Your task to perform on an android device: turn notification dots off Image 0: 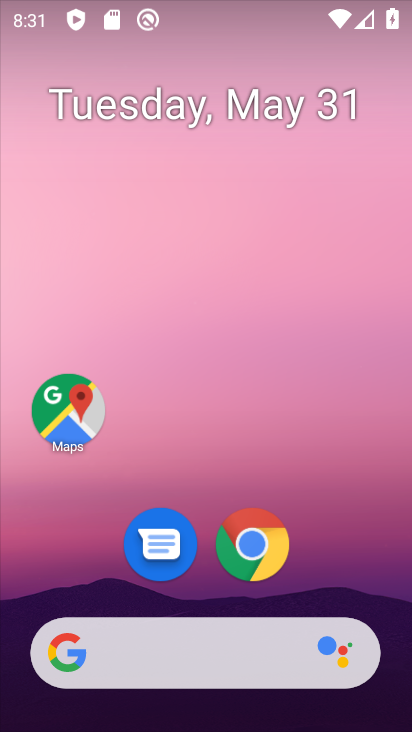
Step 0: drag from (334, 483) to (410, 63)
Your task to perform on an android device: turn notification dots off Image 1: 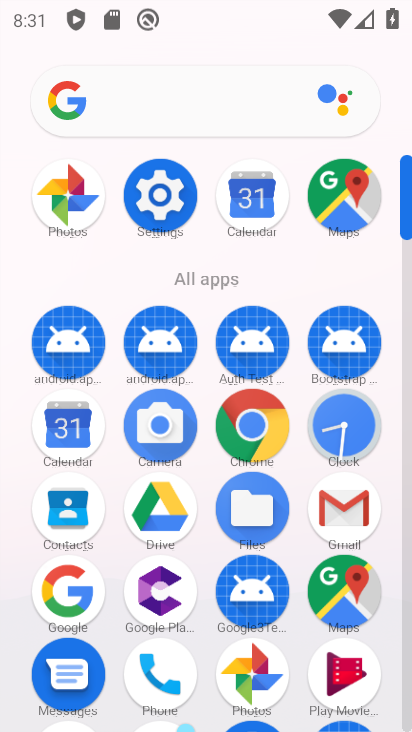
Step 1: click (156, 179)
Your task to perform on an android device: turn notification dots off Image 2: 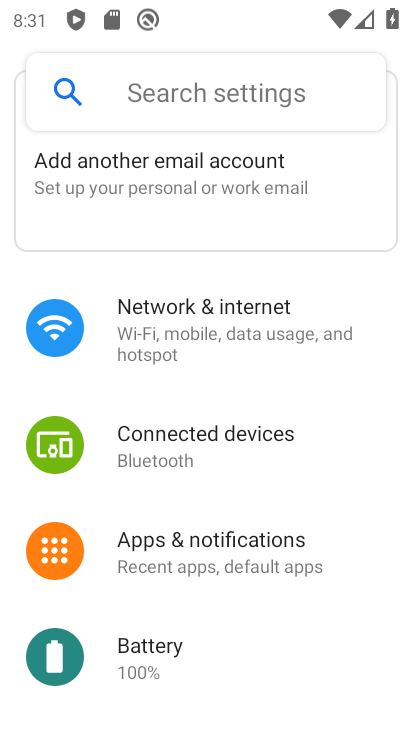
Step 2: click (173, 538)
Your task to perform on an android device: turn notification dots off Image 3: 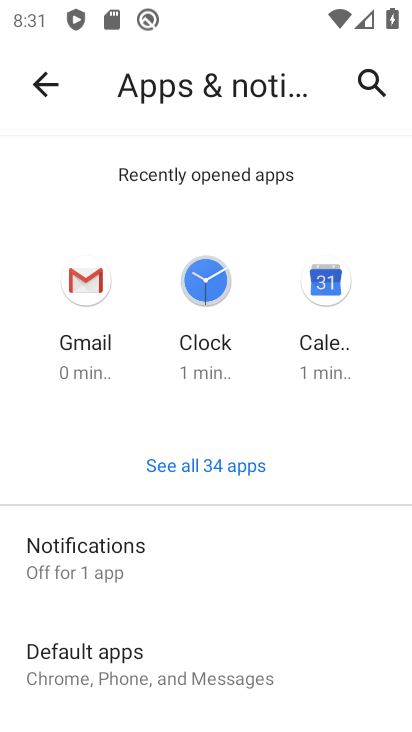
Step 3: click (136, 561)
Your task to perform on an android device: turn notification dots off Image 4: 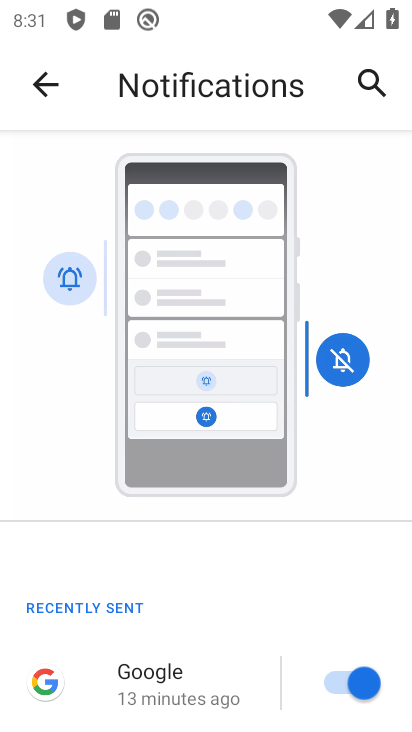
Step 4: drag from (155, 556) to (350, 55)
Your task to perform on an android device: turn notification dots off Image 5: 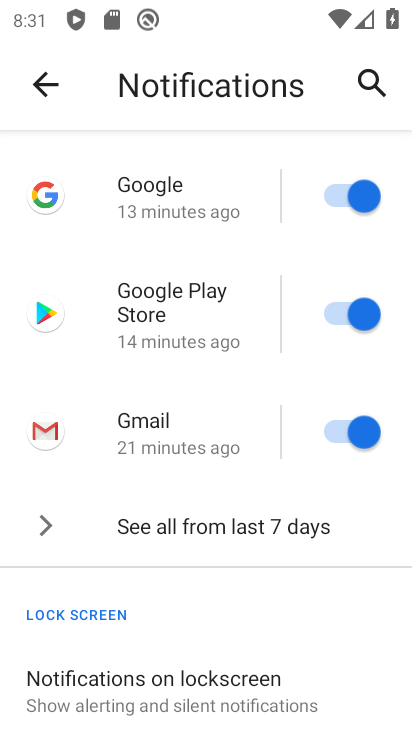
Step 5: drag from (186, 600) to (273, 181)
Your task to perform on an android device: turn notification dots off Image 6: 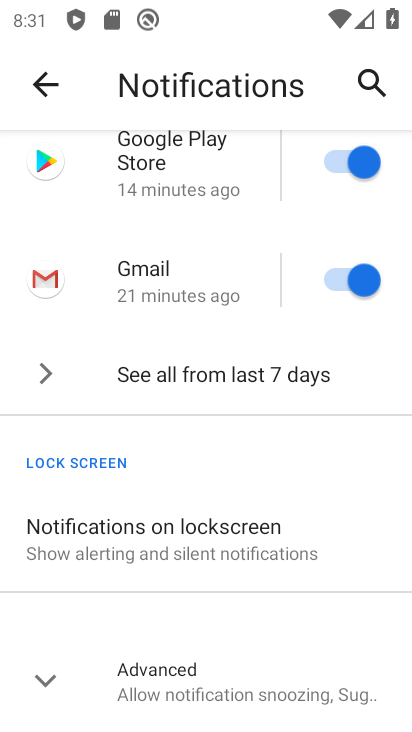
Step 6: click (191, 670)
Your task to perform on an android device: turn notification dots off Image 7: 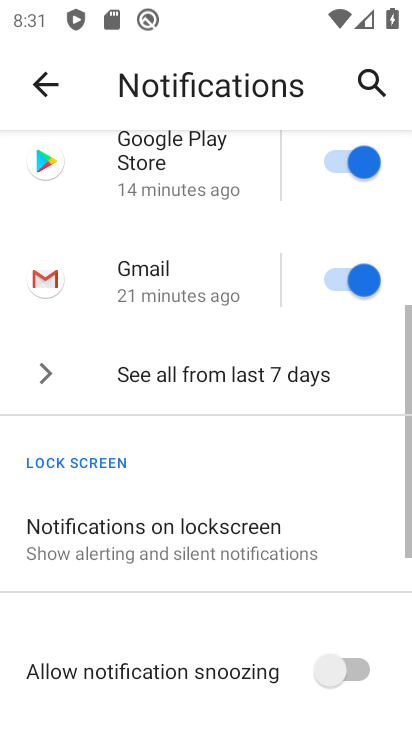
Step 7: drag from (193, 666) to (306, 210)
Your task to perform on an android device: turn notification dots off Image 8: 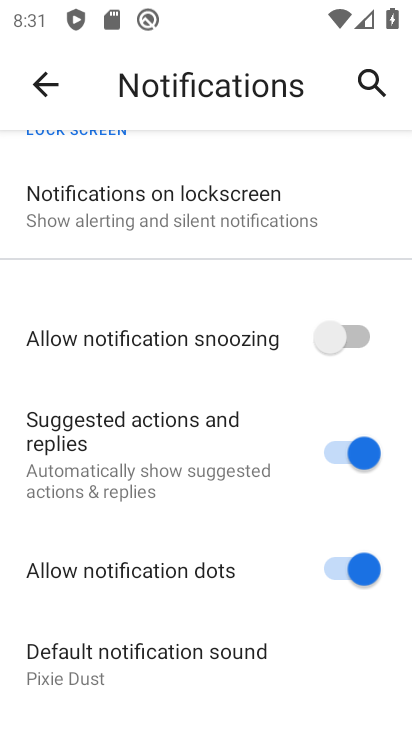
Step 8: click (354, 566)
Your task to perform on an android device: turn notification dots off Image 9: 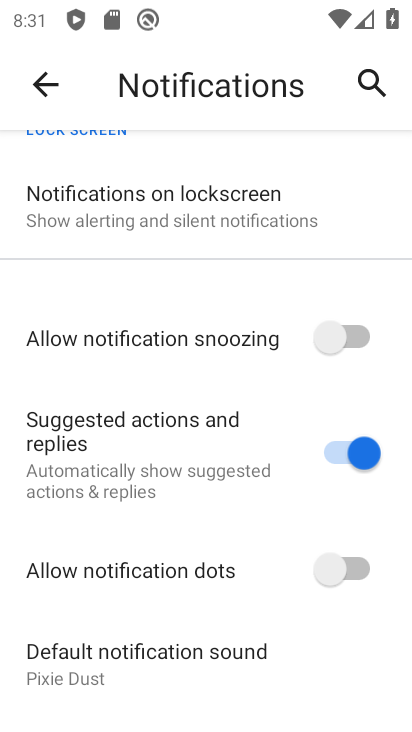
Step 9: task complete